Your task to perform on an android device: Empty the shopping cart on walmart. Add macbook pro 13 inch to the cart on walmart Image 0: 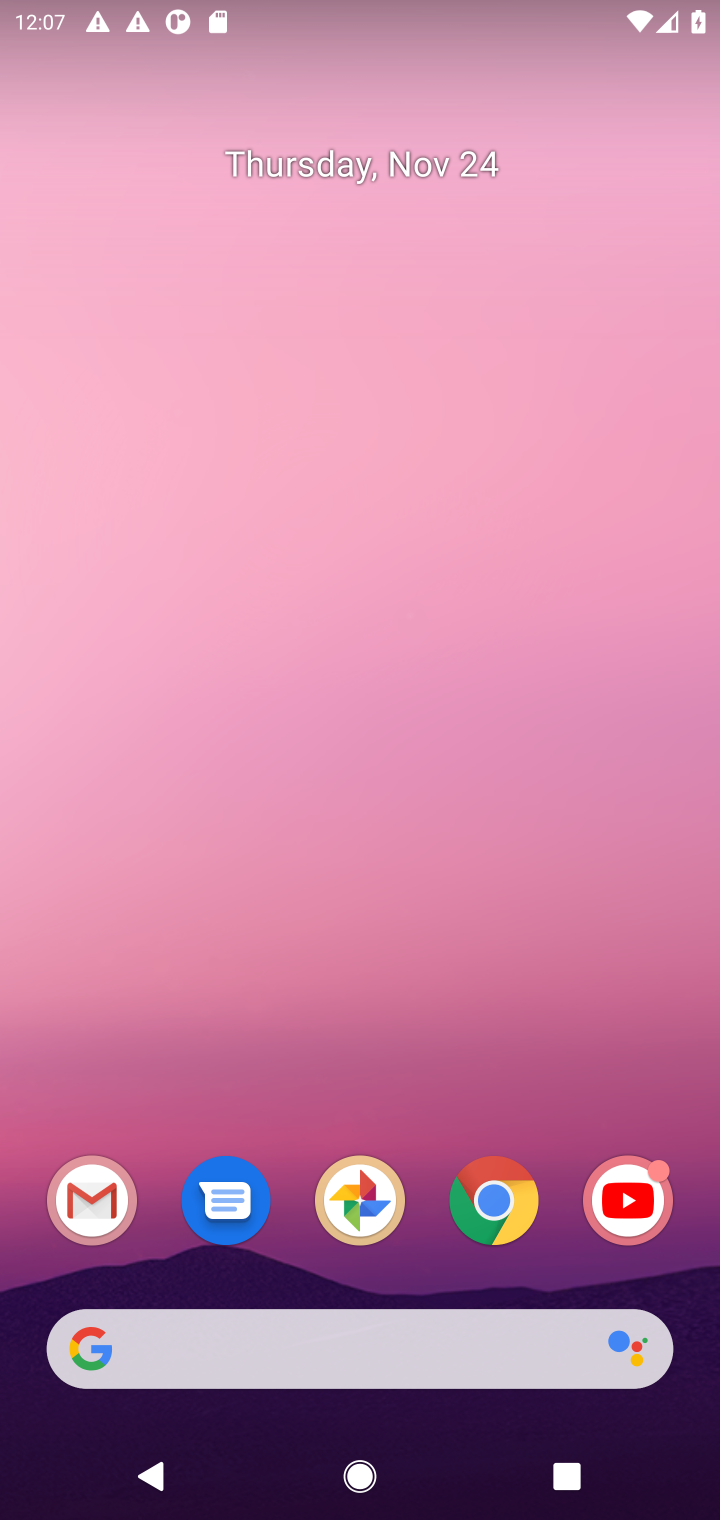
Step 0: click (221, 1345)
Your task to perform on an android device: Empty the shopping cart on walmart. Add macbook pro 13 inch to the cart on walmart Image 1: 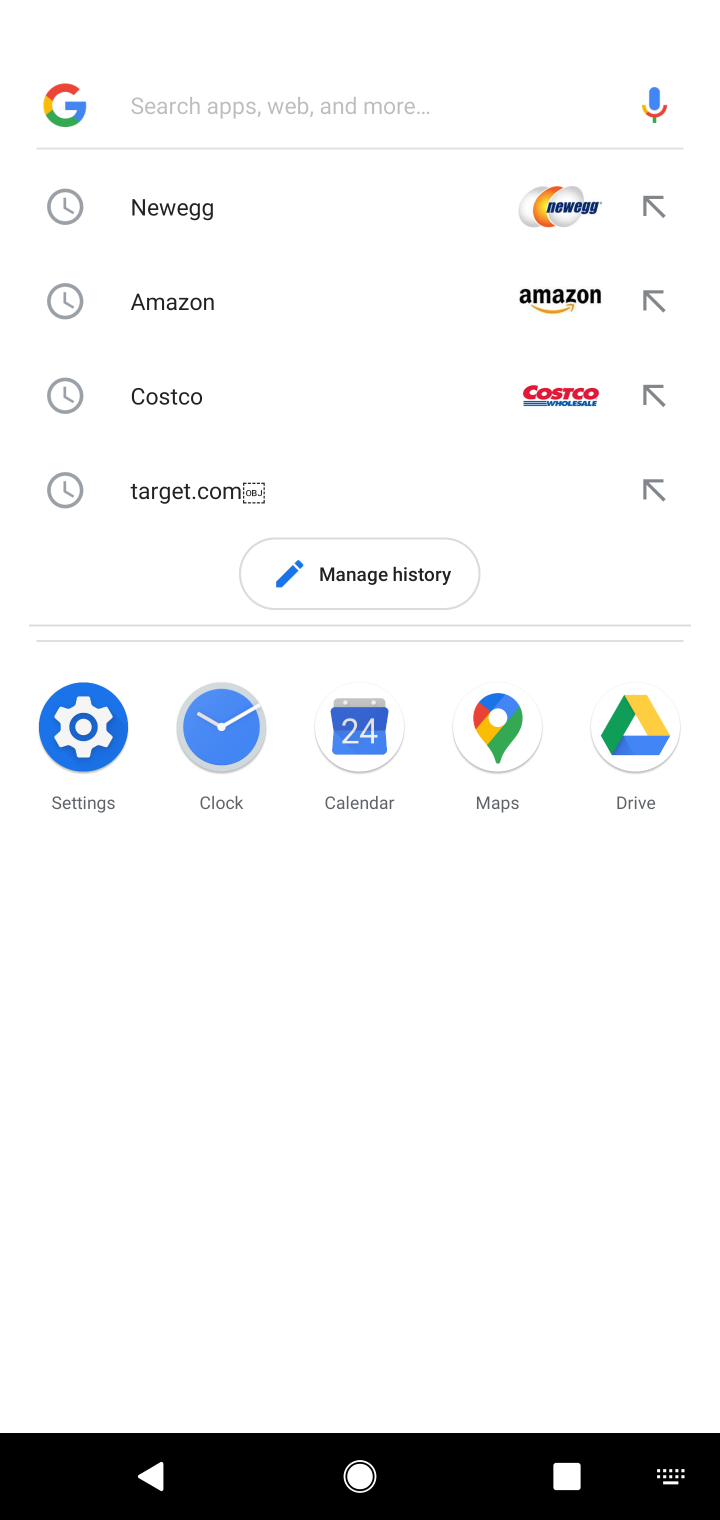
Step 1: type "walmart"
Your task to perform on an android device: Empty the shopping cart on walmart. Add macbook pro 13 inch to the cart on walmart Image 2: 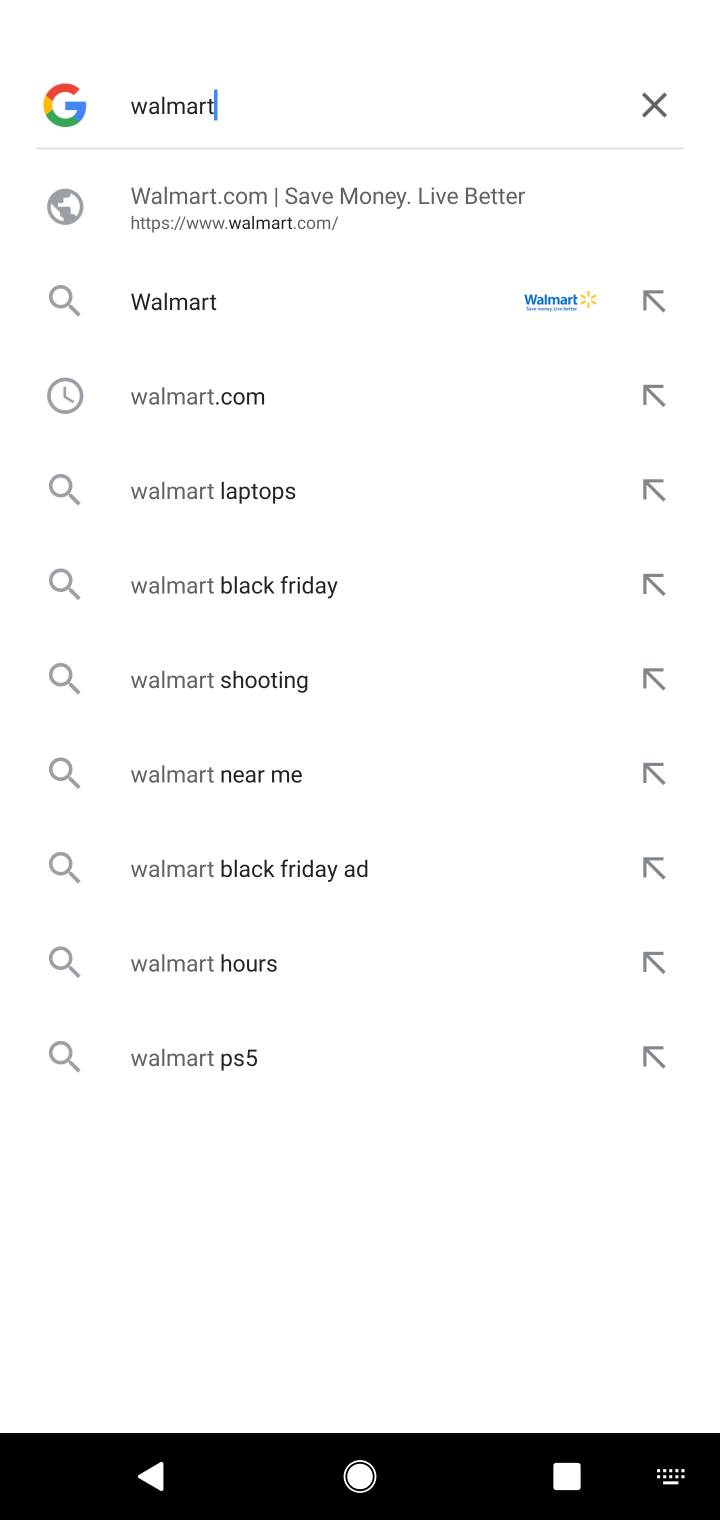
Step 2: click (162, 246)
Your task to perform on an android device: Empty the shopping cart on walmart. Add macbook pro 13 inch to the cart on walmart Image 3: 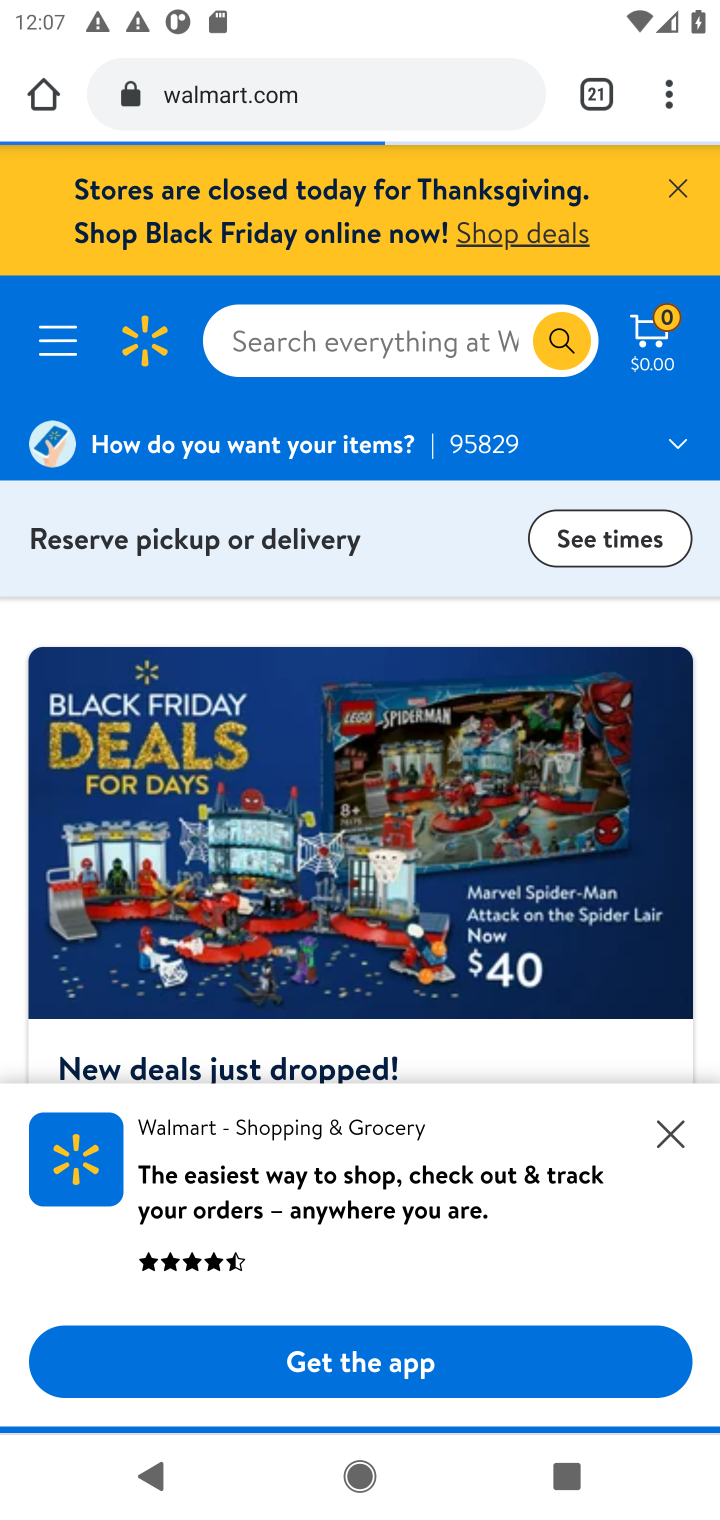
Step 3: click (369, 338)
Your task to perform on an android device: Empty the shopping cart on walmart. Add macbook pro 13 inch to the cart on walmart Image 4: 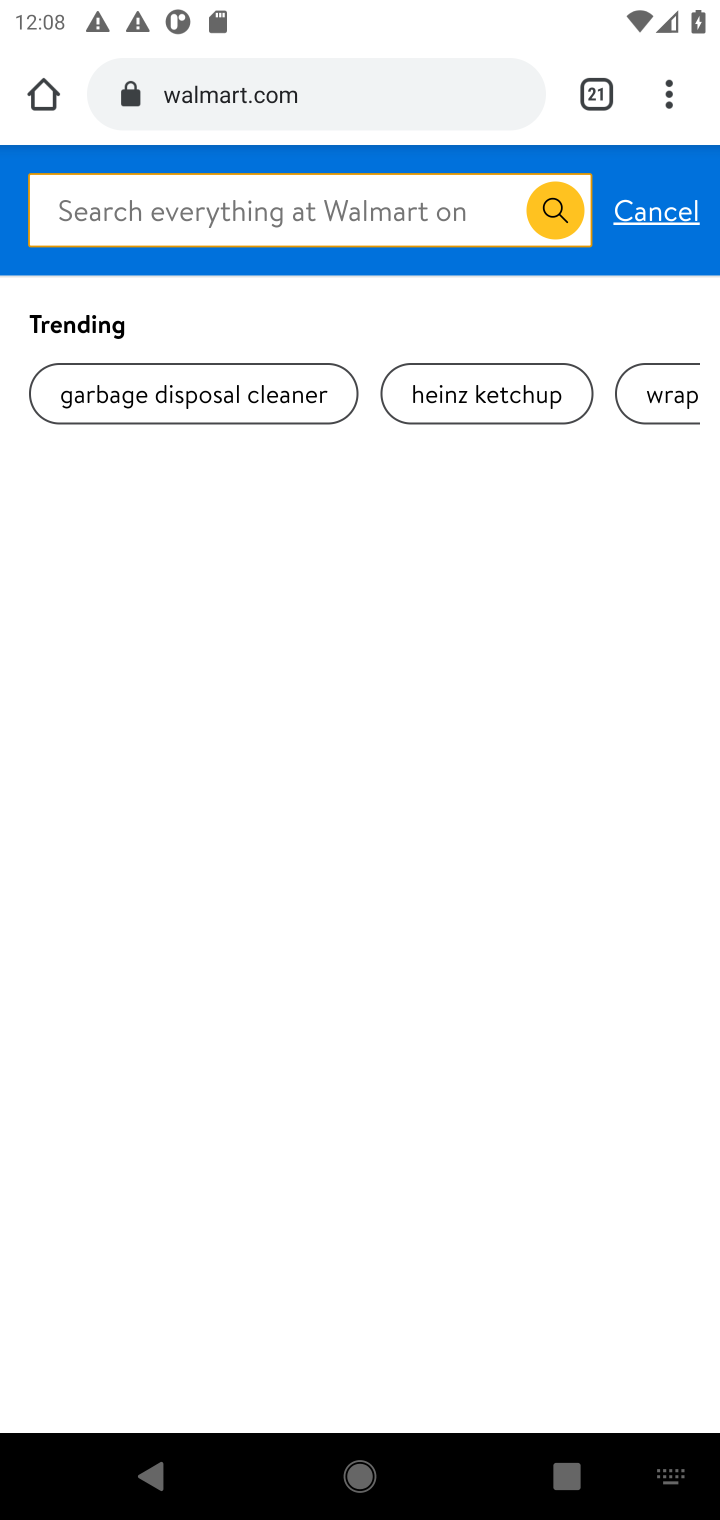
Step 4: type "macbook pro 13"
Your task to perform on an android device: Empty the shopping cart on walmart. Add macbook pro 13 inch to the cart on walmart Image 5: 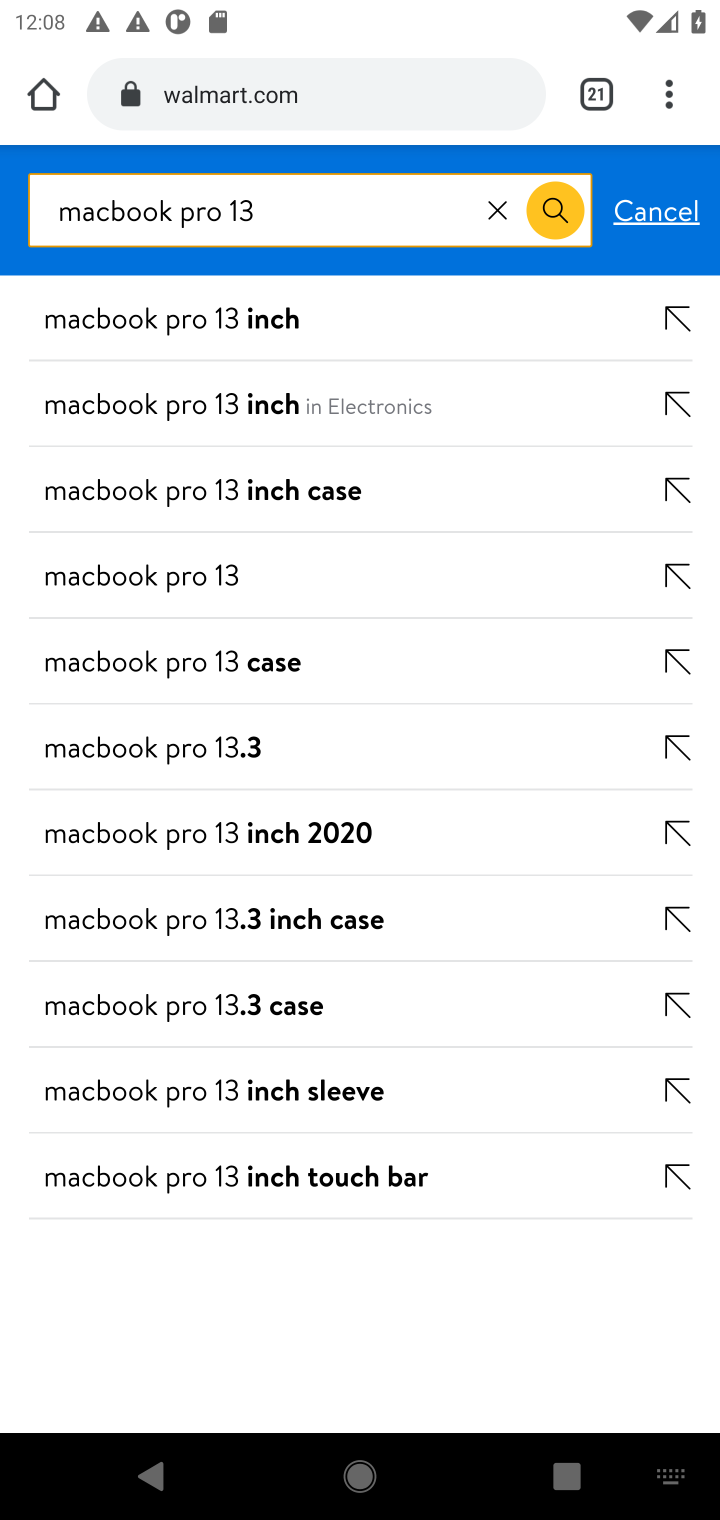
Step 5: click (298, 288)
Your task to perform on an android device: Empty the shopping cart on walmart. Add macbook pro 13 inch to the cart on walmart Image 6: 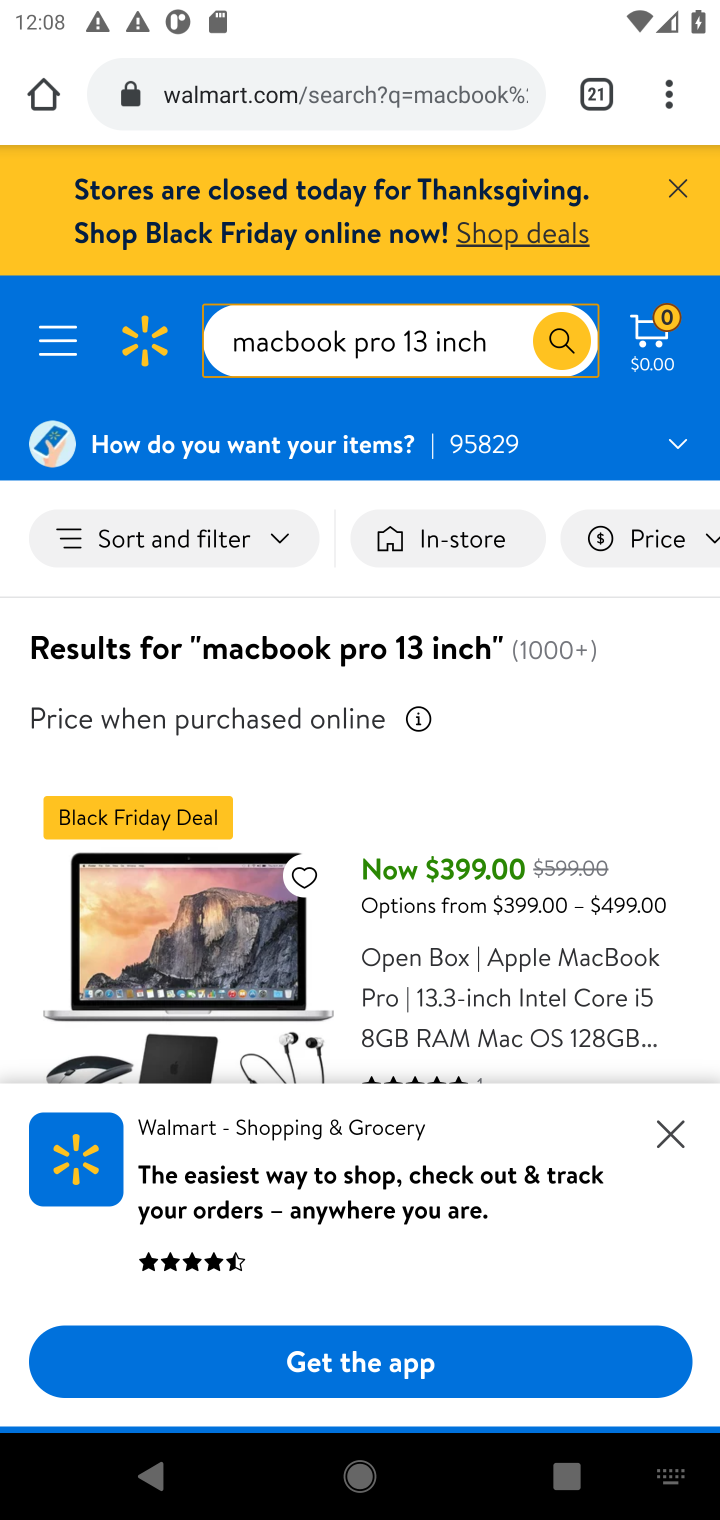
Step 6: click (683, 1148)
Your task to perform on an android device: Empty the shopping cart on walmart. Add macbook pro 13 inch to the cart on walmart Image 7: 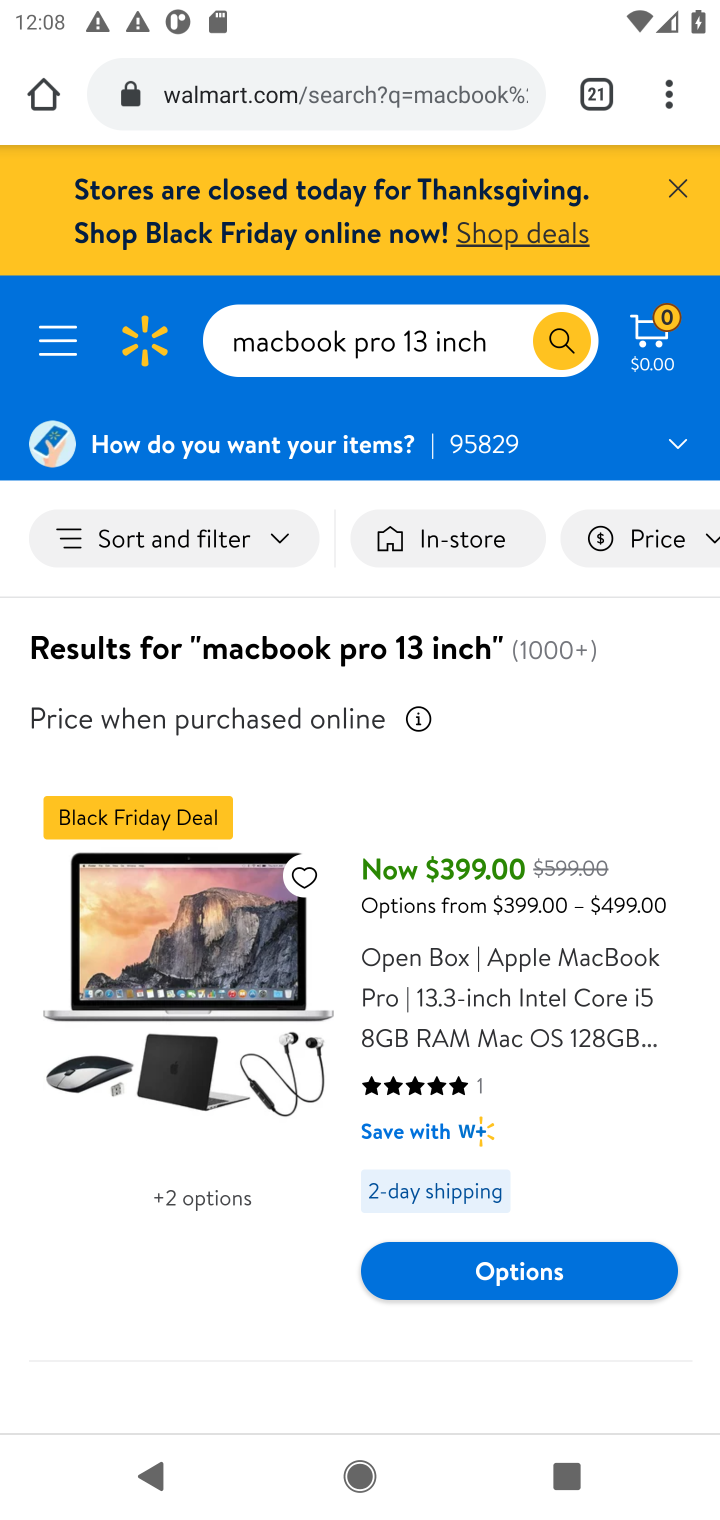
Step 7: click (493, 1013)
Your task to perform on an android device: Empty the shopping cart on walmart. Add macbook pro 13 inch to the cart on walmart Image 8: 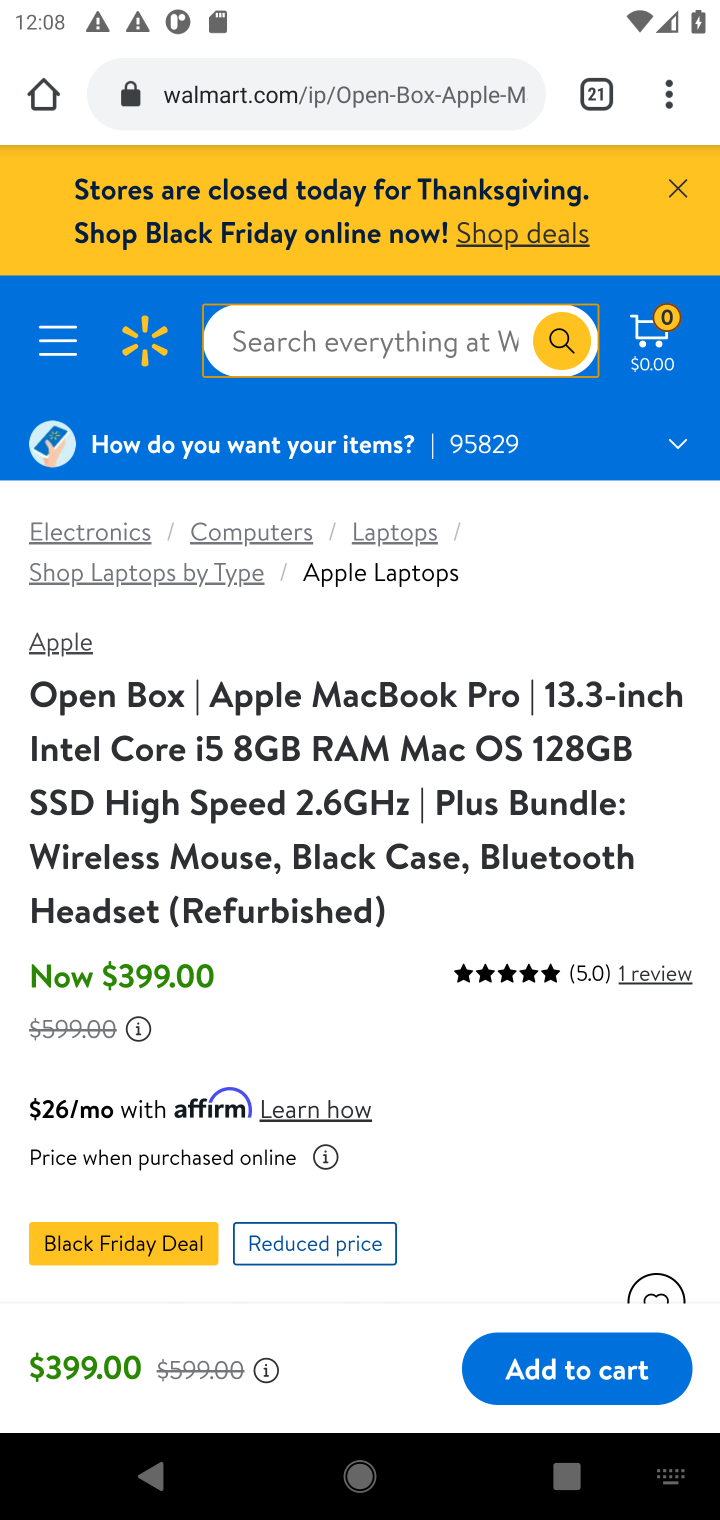
Step 8: click (601, 1331)
Your task to perform on an android device: Empty the shopping cart on walmart. Add macbook pro 13 inch to the cart on walmart Image 9: 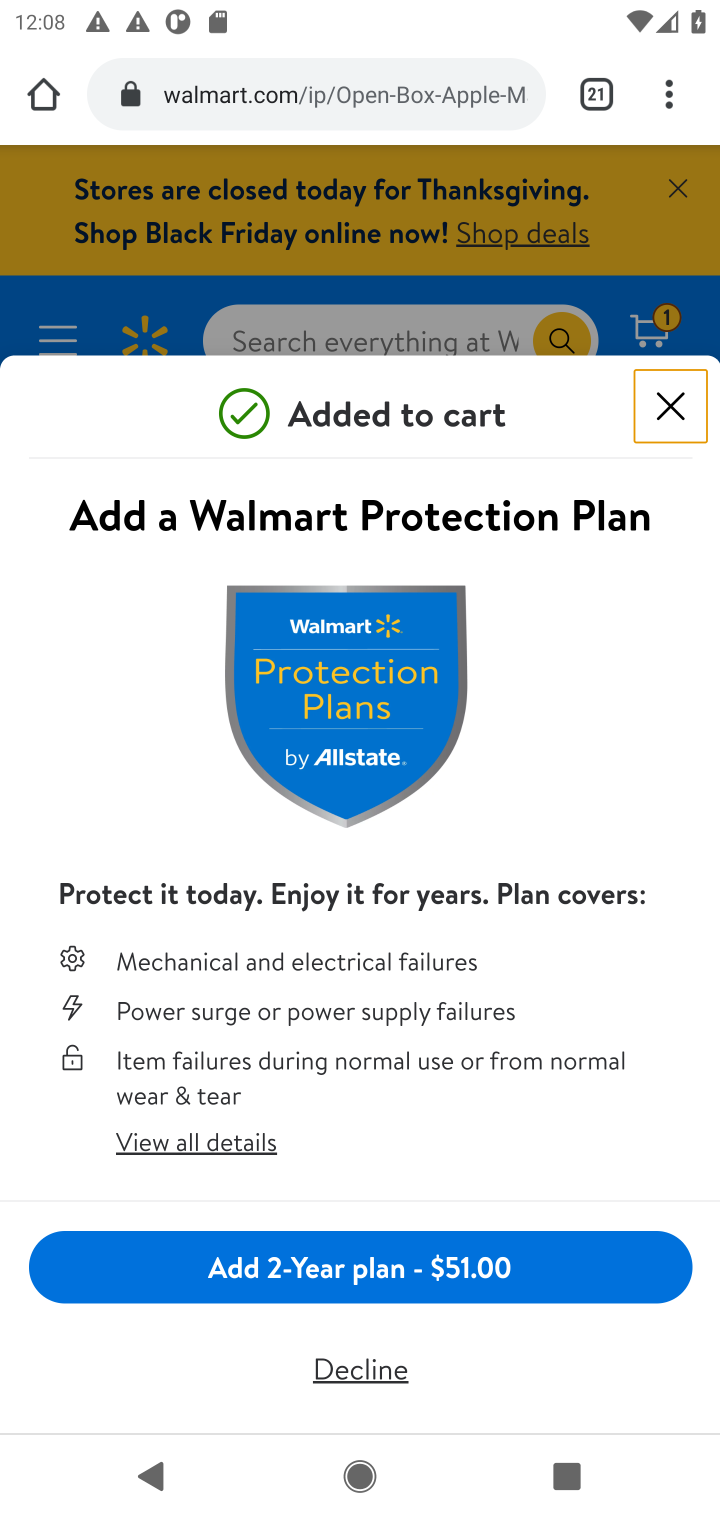
Step 9: click (669, 408)
Your task to perform on an android device: Empty the shopping cart on walmart. Add macbook pro 13 inch to the cart on walmart Image 10: 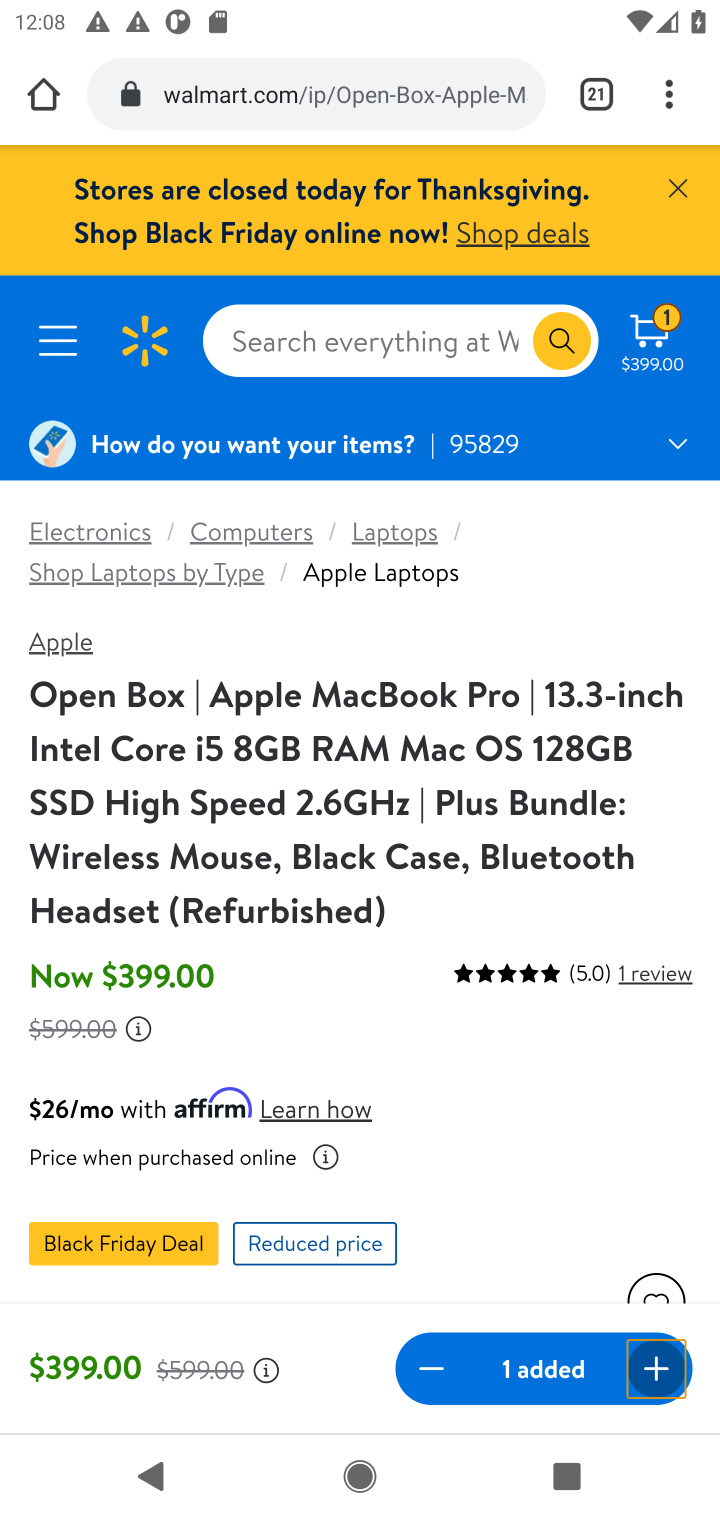
Step 10: task complete